Your task to perform on an android device: toggle sleep mode Image 0: 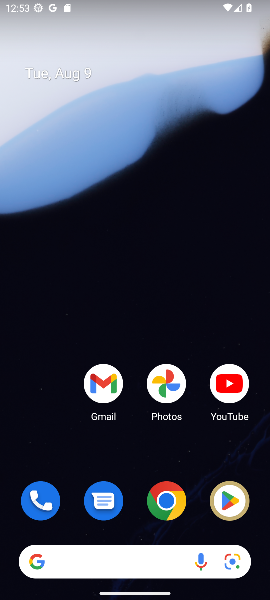
Step 0: drag from (111, 456) to (138, 167)
Your task to perform on an android device: toggle sleep mode Image 1: 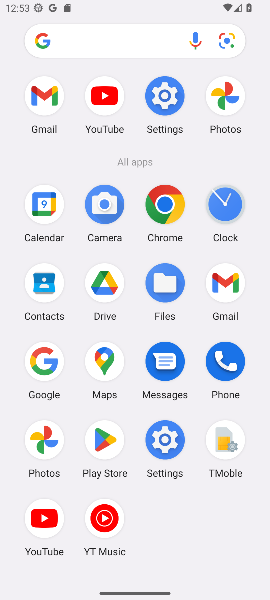
Step 1: click (165, 82)
Your task to perform on an android device: toggle sleep mode Image 2: 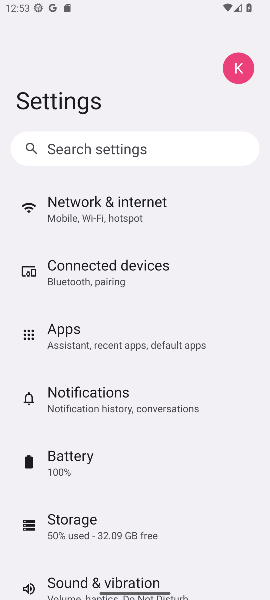
Step 2: drag from (80, 533) to (96, 217)
Your task to perform on an android device: toggle sleep mode Image 3: 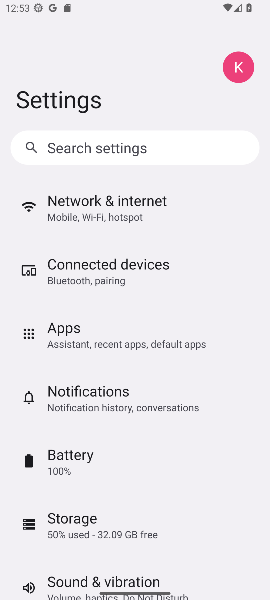
Step 3: drag from (116, 502) to (108, 160)
Your task to perform on an android device: toggle sleep mode Image 4: 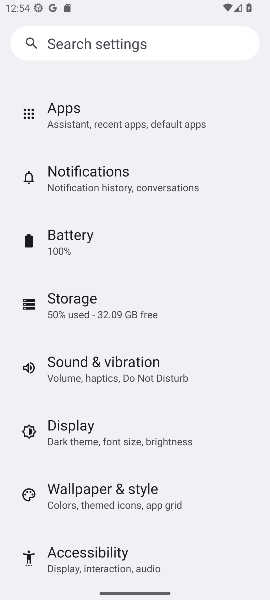
Step 4: click (98, 444)
Your task to perform on an android device: toggle sleep mode Image 5: 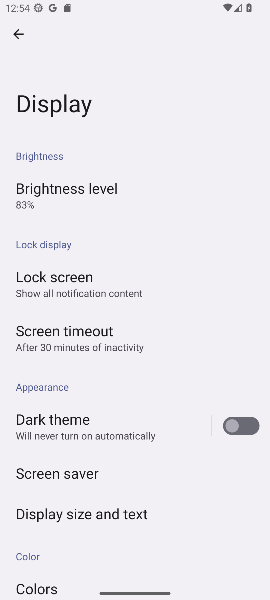
Step 5: task complete